Your task to perform on an android device: Go to calendar. Show me events next week Image 0: 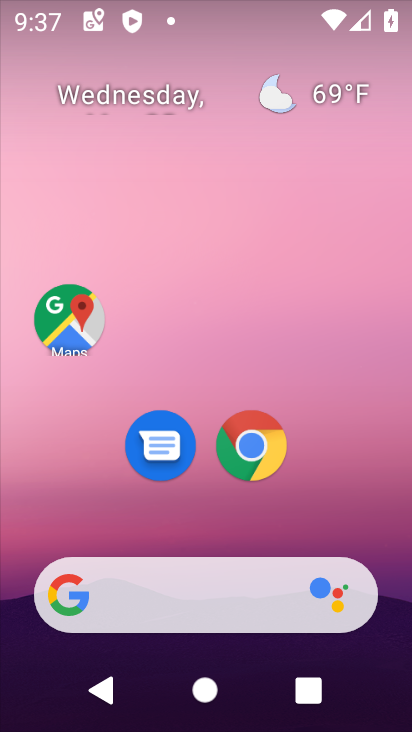
Step 0: drag from (371, 516) to (375, 78)
Your task to perform on an android device: Go to calendar. Show me events next week Image 1: 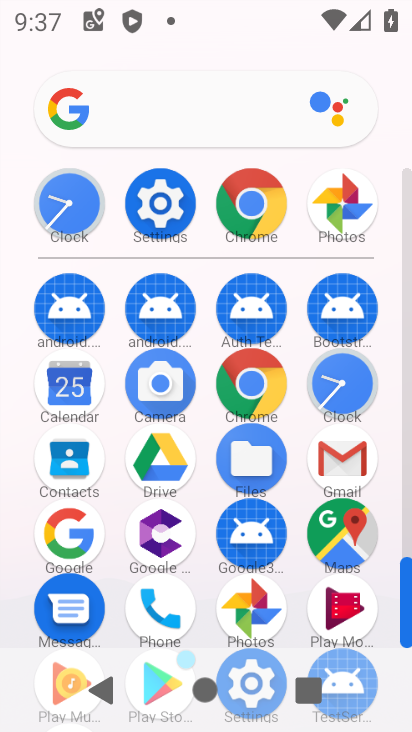
Step 1: click (96, 403)
Your task to perform on an android device: Go to calendar. Show me events next week Image 2: 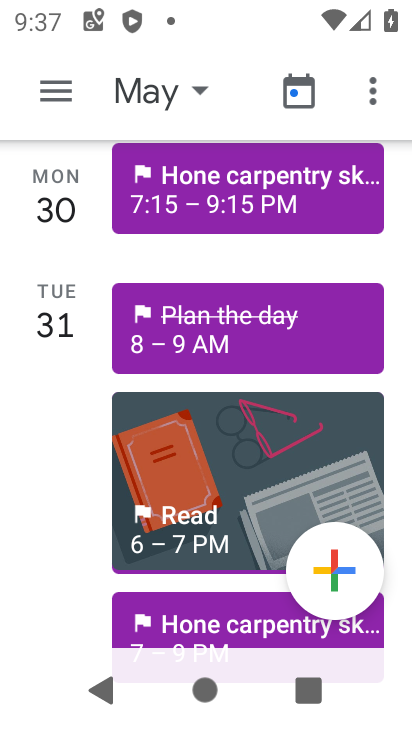
Step 2: click (191, 92)
Your task to perform on an android device: Go to calendar. Show me events next week Image 3: 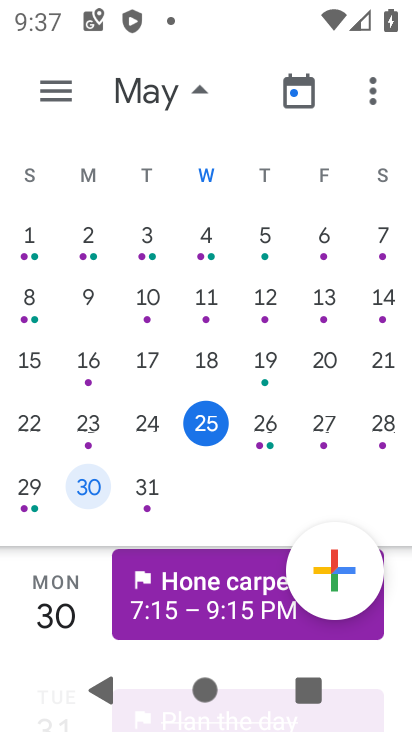
Step 3: click (191, 92)
Your task to perform on an android device: Go to calendar. Show me events next week Image 4: 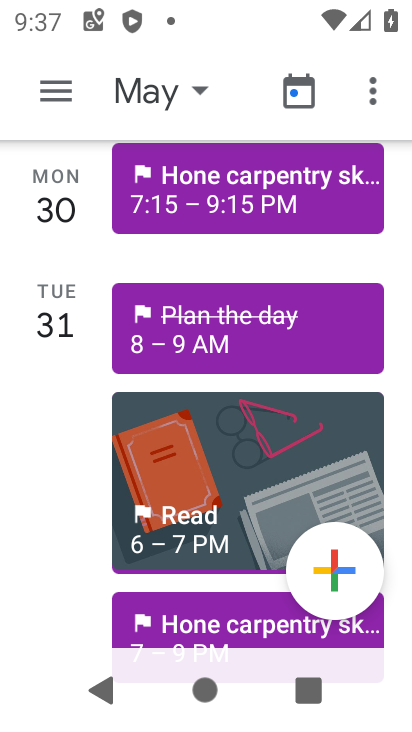
Step 4: task complete